Your task to perform on an android device: set an alarm Image 0: 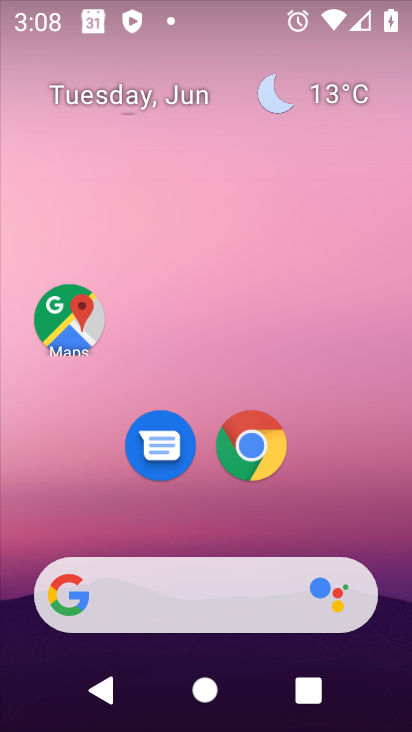
Step 0: drag from (404, 598) to (376, 153)
Your task to perform on an android device: set an alarm Image 1: 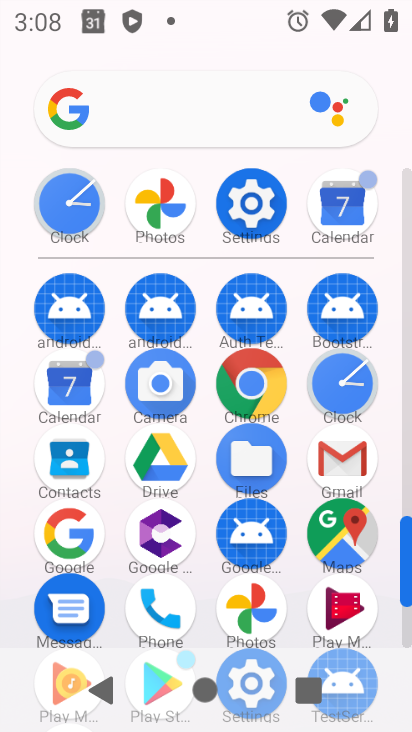
Step 1: click (407, 626)
Your task to perform on an android device: set an alarm Image 2: 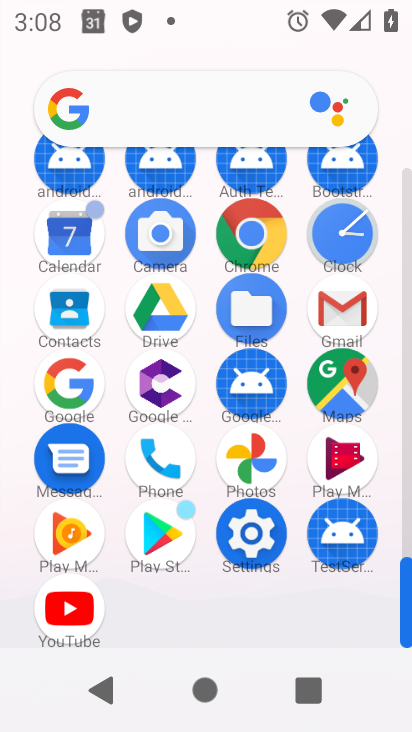
Step 2: click (341, 231)
Your task to perform on an android device: set an alarm Image 3: 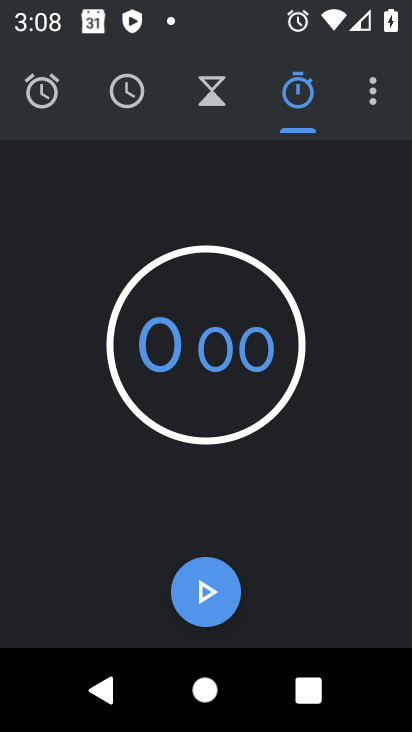
Step 3: click (40, 90)
Your task to perform on an android device: set an alarm Image 4: 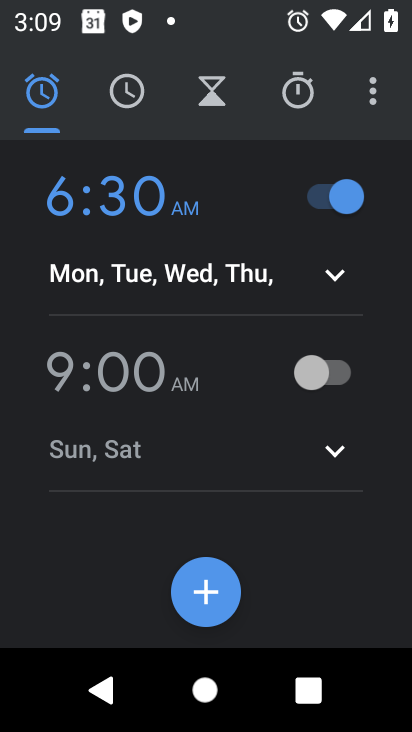
Step 4: click (91, 378)
Your task to perform on an android device: set an alarm Image 5: 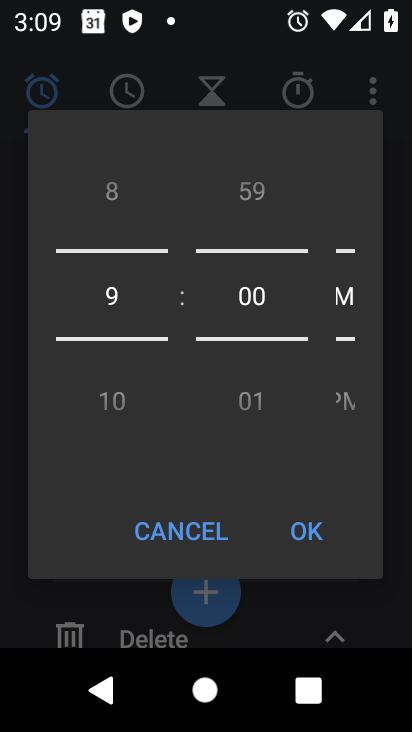
Step 5: drag from (123, 200) to (117, 407)
Your task to perform on an android device: set an alarm Image 6: 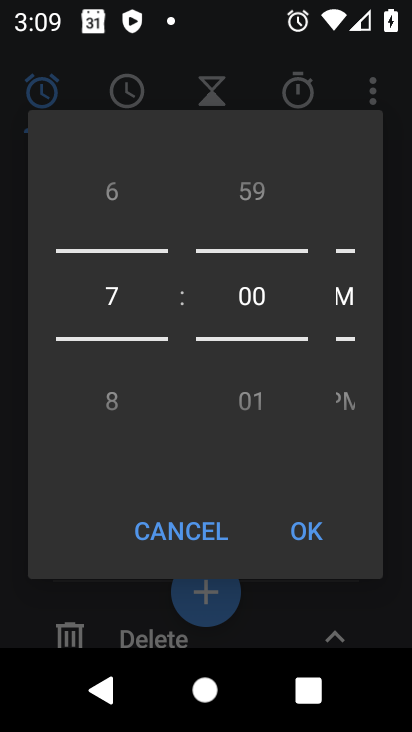
Step 6: drag from (120, 210) to (119, 340)
Your task to perform on an android device: set an alarm Image 7: 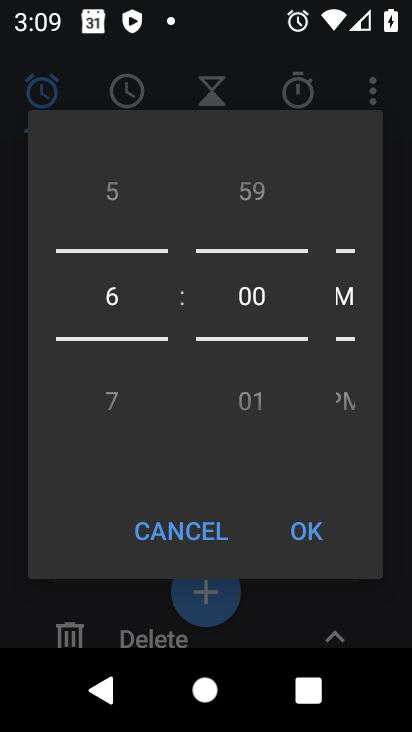
Step 7: click (305, 525)
Your task to perform on an android device: set an alarm Image 8: 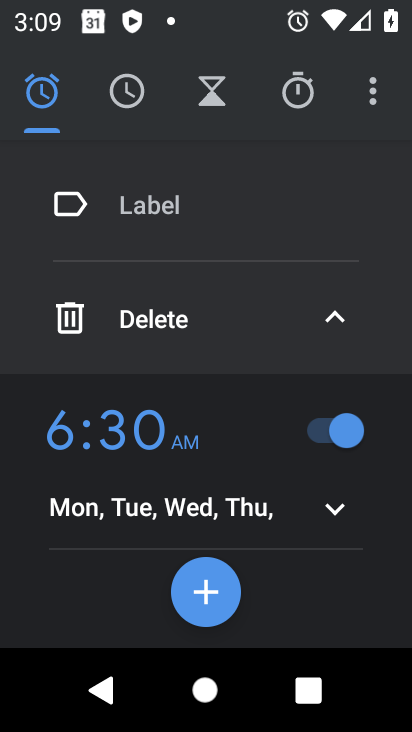
Step 8: task complete